Your task to perform on an android device: Open location settings Image 0: 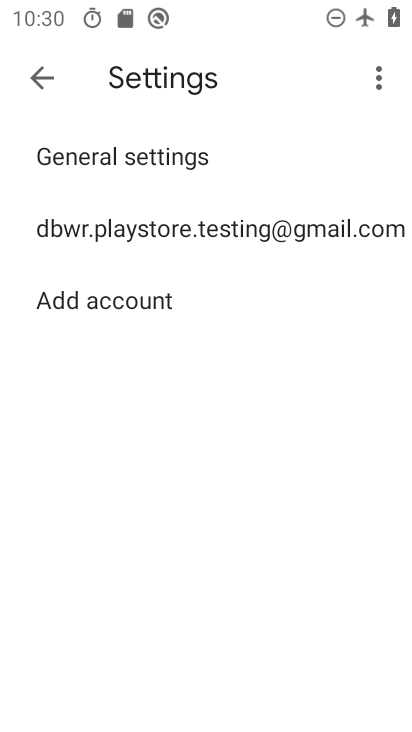
Step 0: press home button
Your task to perform on an android device: Open location settings Image 1: 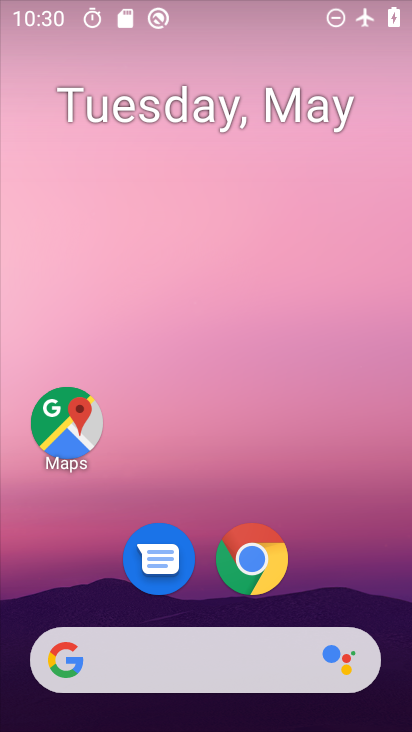
Step 1: drag from (393, 643) to (326, 115)
Your task to perform on an android device: Open location settings Image 2: 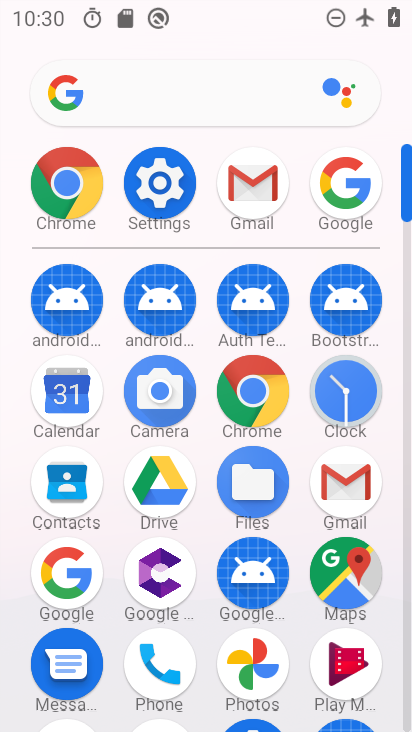
Step 2: click (158, 177)
Your task to perform on an android device: Open location settings Image 3: 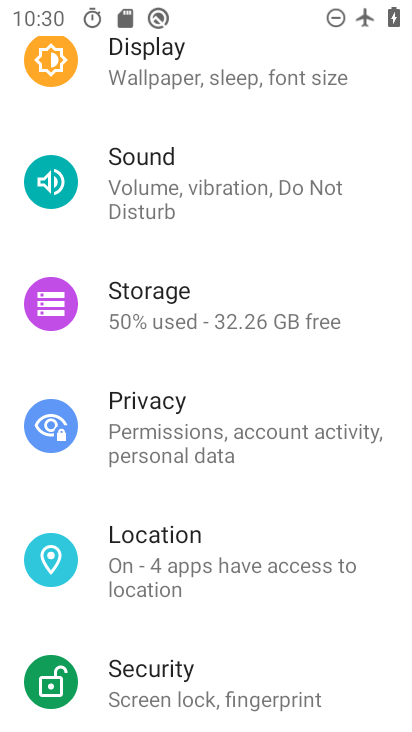
Step 3: click (263, 579)
Your task to perform on an android device: Open location settings Image 4: 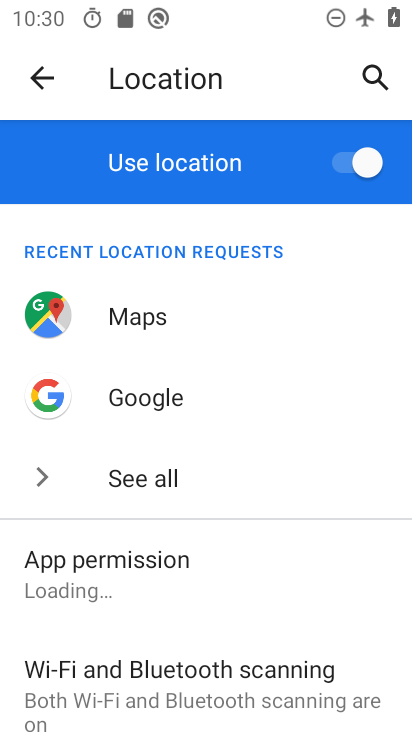
Step 4: task complete